Your task to perform on an android device: Do I have any events this weekend? Image 0: 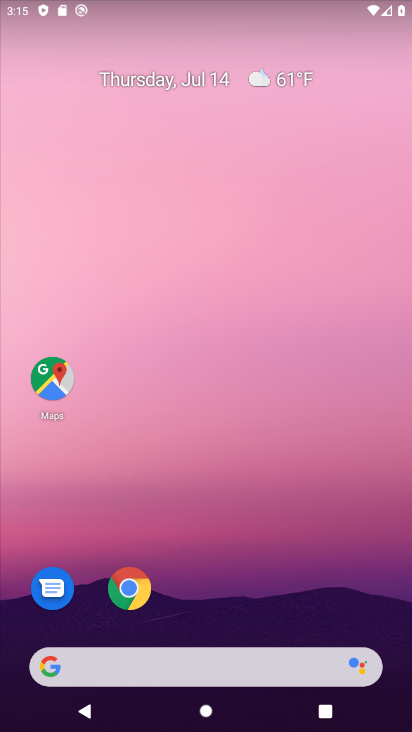
Step 0: drag from (222, 647) to (222, 179)
Your task to perform on an android device: Do I have any events this weekend? Image 1: 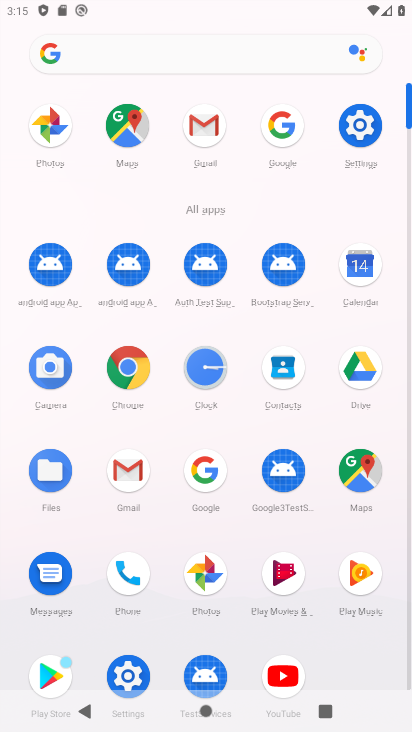
Step 1: click (368, 279)
Your task to perform on an android device: Do I have any events this weekend? Image 2: 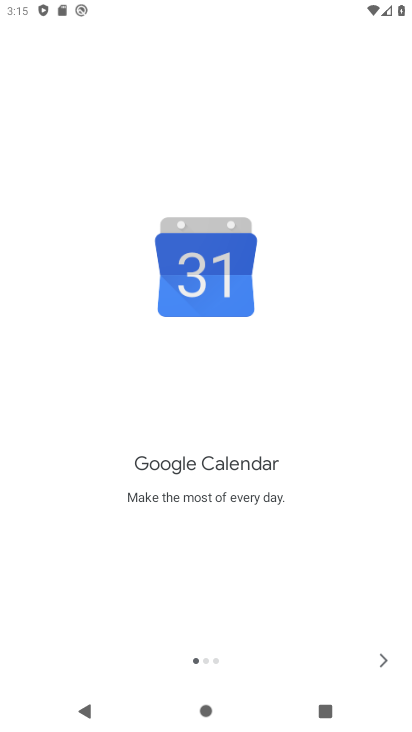
Step 2: click (376, 658)
Your task to perform on an android device: Do I have any events this weekend? Image 3: 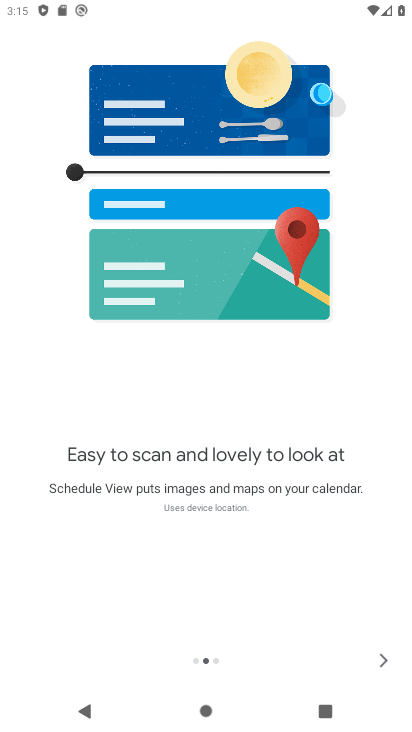
Step 3: click (383, 661)
Your task to perform on an android device: Do I have any events this weekend? Image 4: 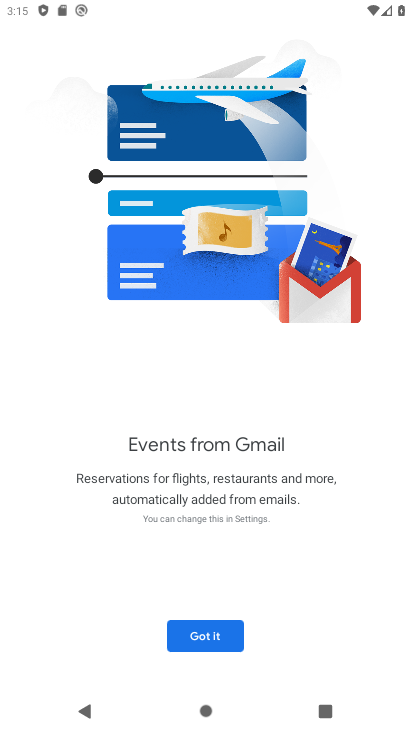
Step 4: click (206, 633)
Your task to perform on an android device: Do I have any events this weekend? Image 5: 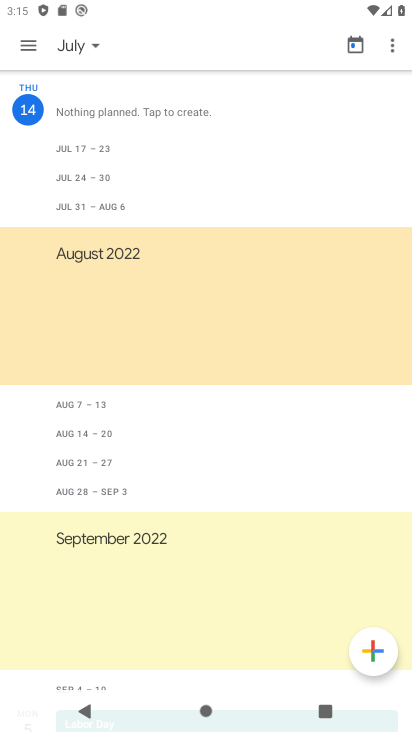
Step 5: click (29, 48)
Your task to perform on an android device: Do I have any events this weekend? Image 6: 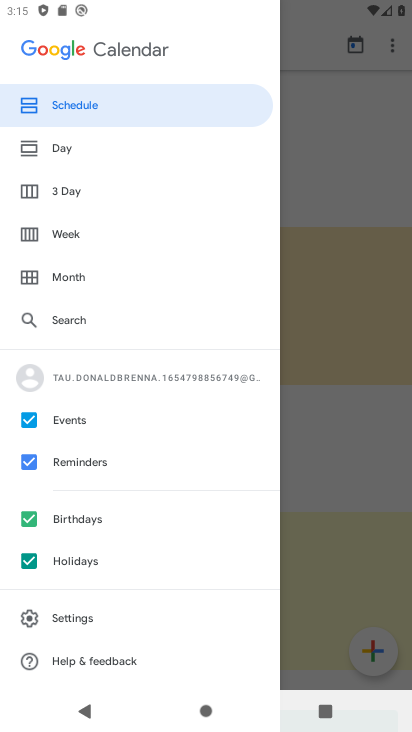
Step 6: click (56, 237)
Your task to perform on an android device: Do I have any events this weekend? Image 7: 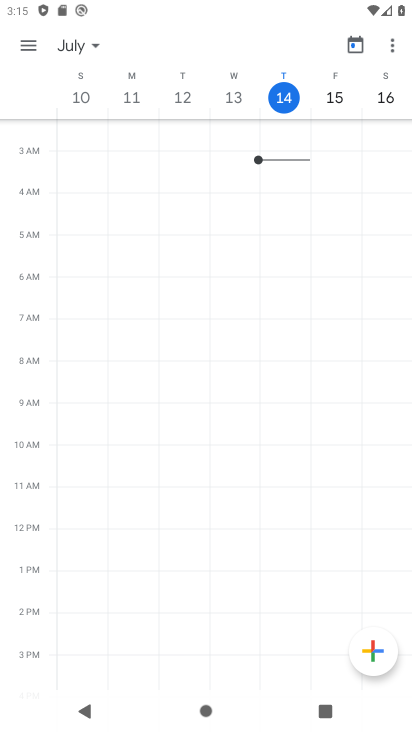
Step 7: task complete